Your task to perform on an android device: What's the weather going to be tomorrow? Image 0: 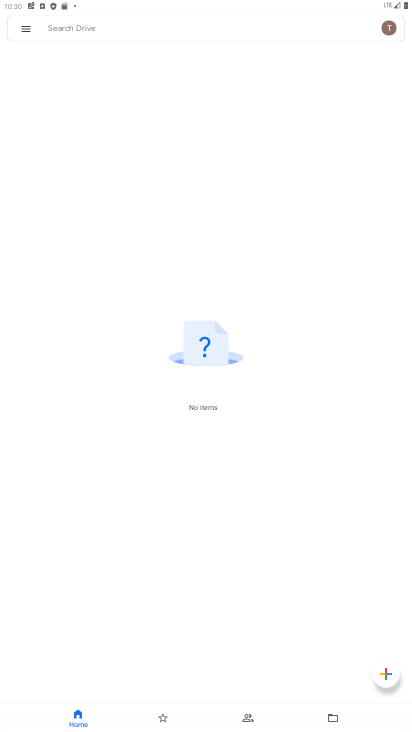
Step 0: press home button
Your task to perform on an android device: What's the weather going to be tomorrow? Image 1: 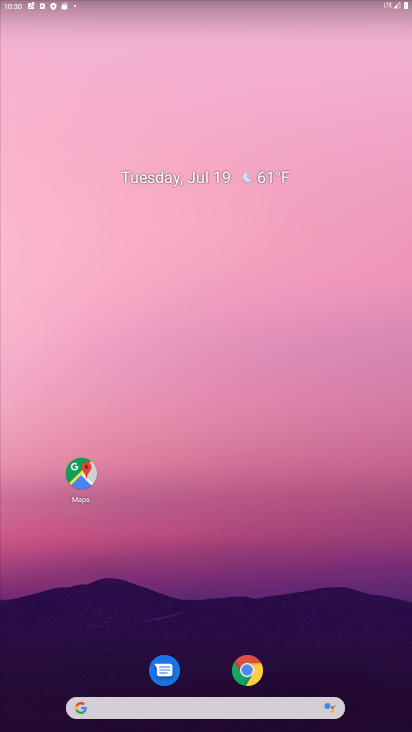
Step 1: click (221, 712)
Your task to perform on an android device: What's the weather going to be tomorrow? Image 2: 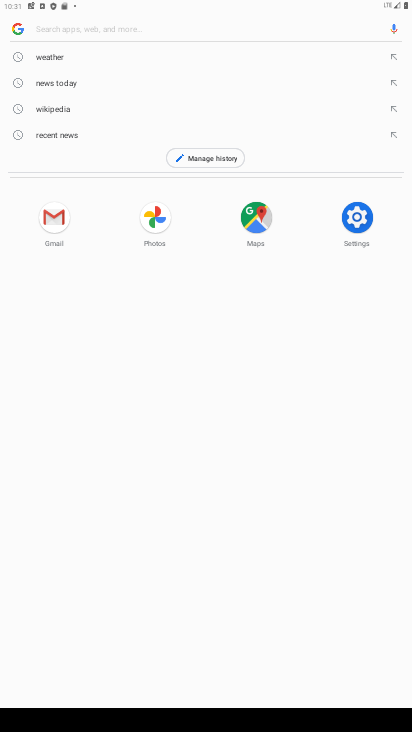
Step 2: type "What's the weather going to be tomorrow?"
Your task to perform on an android device: What's the weather going to be tomorrow? Image 3: 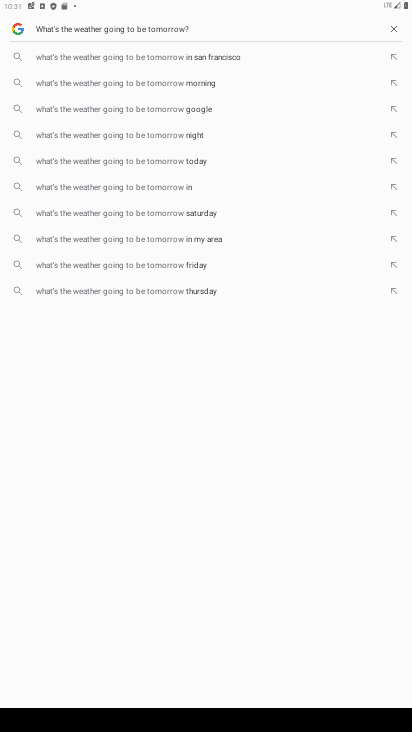
Step 3: press enter
Your task to perform on an android device: What's the weather going to be tomorrow? Image 4: 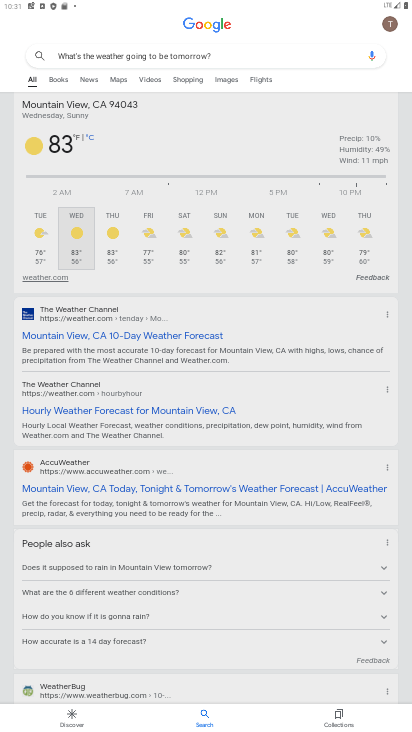
Step 4: task complete